Your task to perform on an android device: toggle priority inbox in the gmail app Image 0: 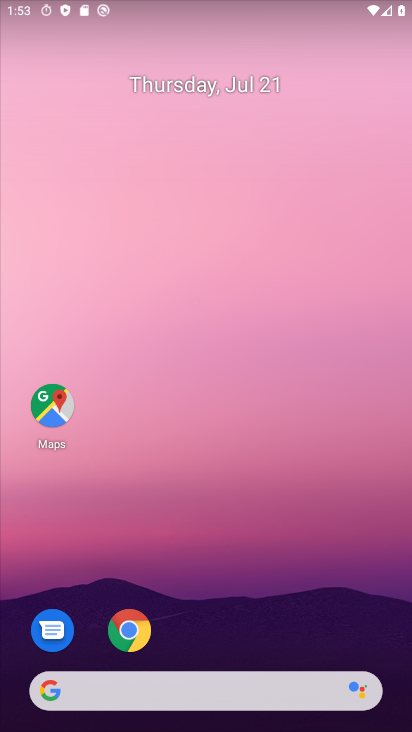
Step 0: drag from (174, 649) to (224, 105)
Your task to perform on an android device: toggle priority inbox in the gmail app Image 1: 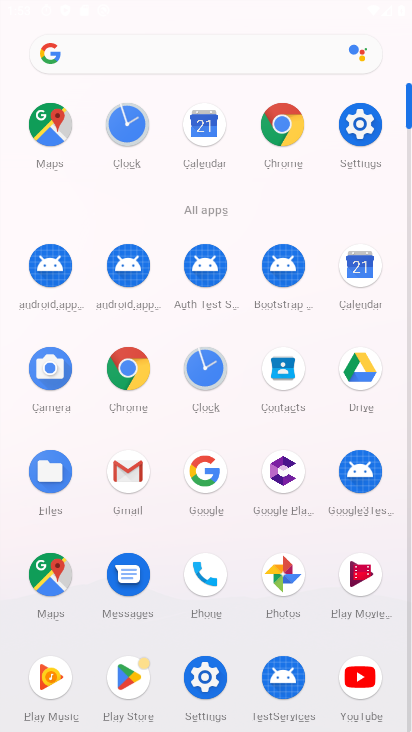
Step 1: click (130, 470)
Your task to perform on an android device: toggle priority inbox in the gmail app Image 2: 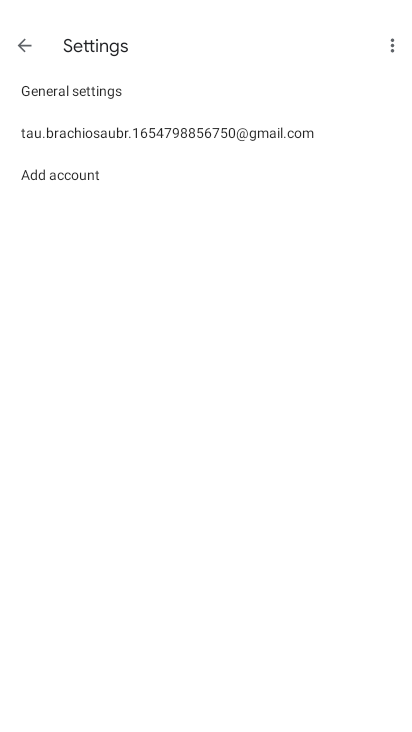
Step 2: click (82, 130)
Your task to perform on an android device: toggle priority inbox in the gmail app Image 3: 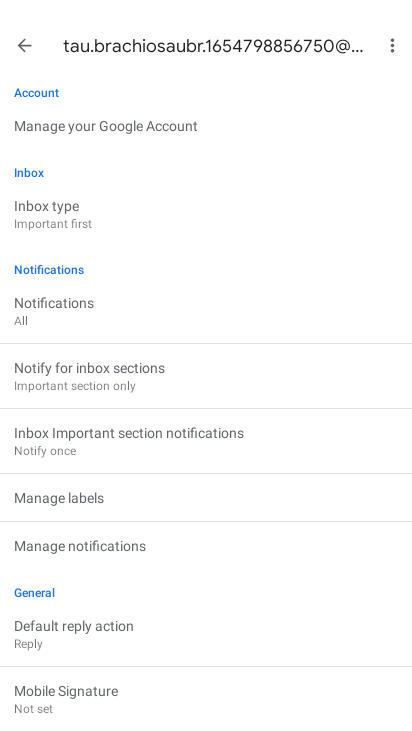
Step 3: click (76, 217)
Your task to perform on an android device: toggle priority inbox in the gmail app Image 4: 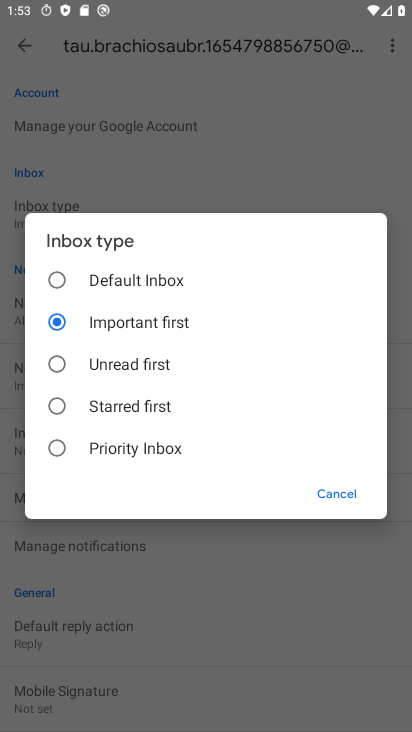
Step 4: click (56, 451)
Your task to perform on an android device: toggle priority inbox in the gmail app Image 5: 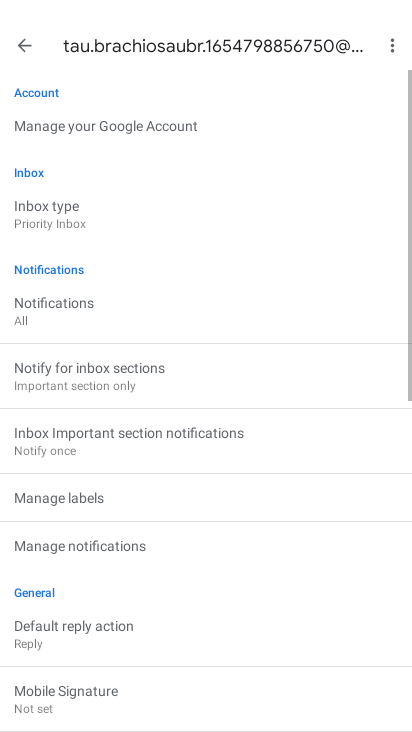
Step 5: task complete